Your task to perform on an android device: Go to location settings Image 0: 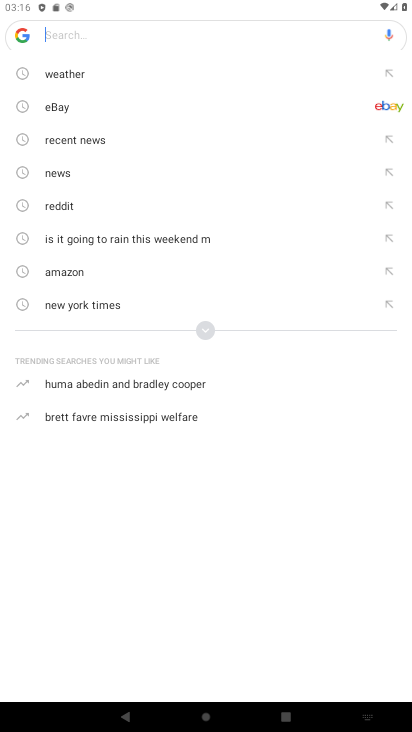
Step 0: press back button
Your task to perform on an android device: Go to location settings Image 1: 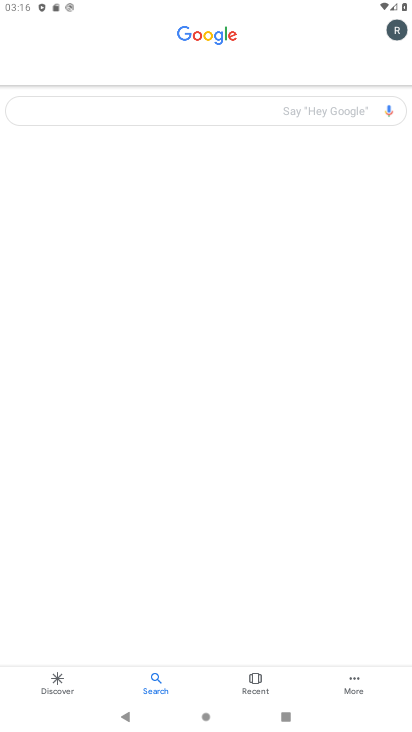
Step 1: press back button
Your task to perform on an android device: Go to location settings Image 2: 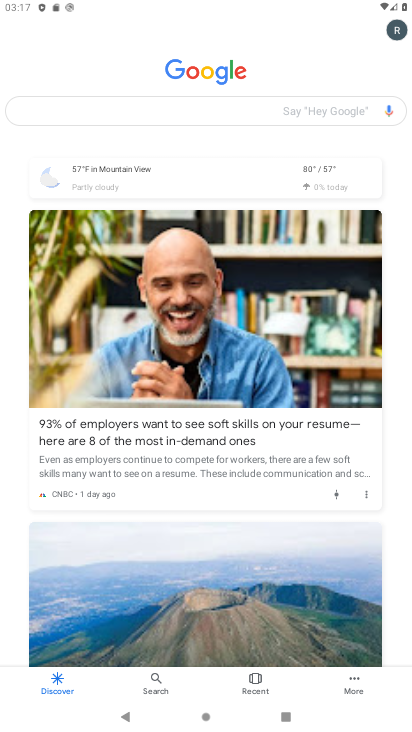
Step 2: press back button
Your task to perform on an android device: Go to location settings Image 3: 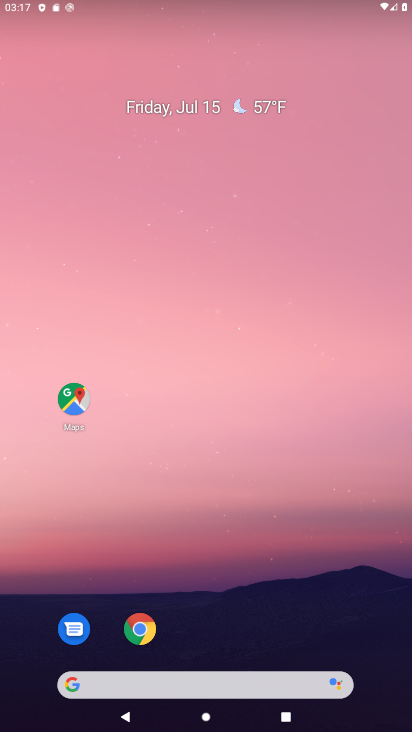
Step 3: drag from (383, 717) to (248, 187)
Your task to perform on an android device: Go to location settings Image 4: 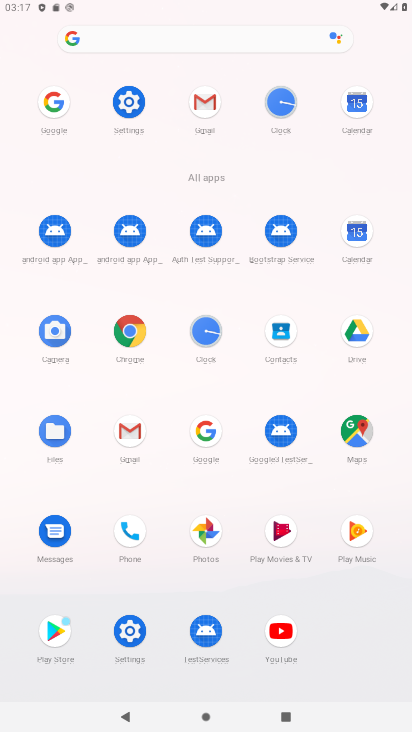
Step 4: click (135, 98)
Your task to perform on an android device: Go to location settings Image 5: 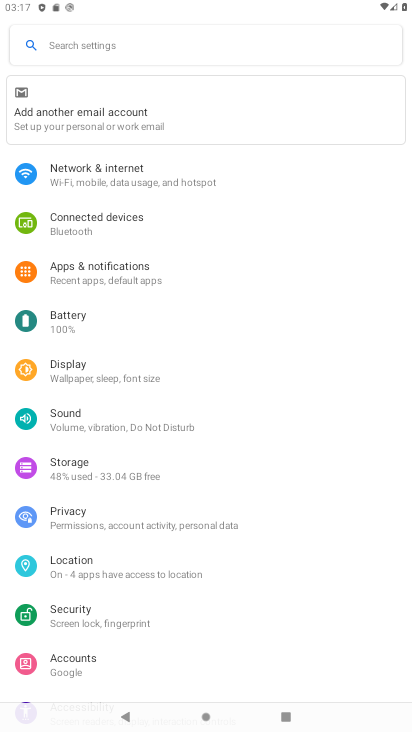
Step 5: click (70, 561)
Your task to perform on an android device: Go to location settings Image 6: 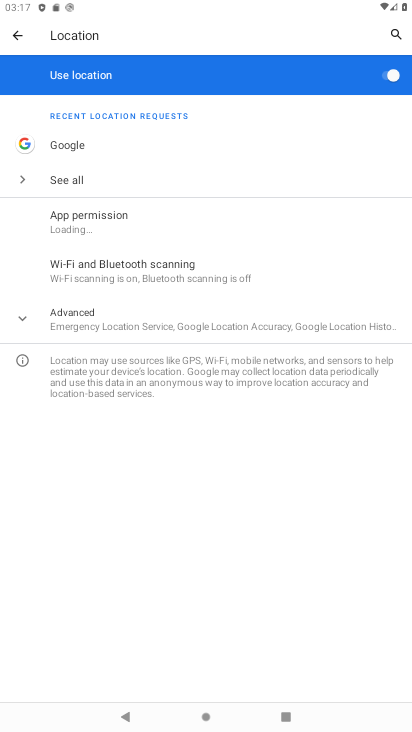
Step 6: click (22, 319)
Your task to perform on an android device: Go to location settings Image 7: 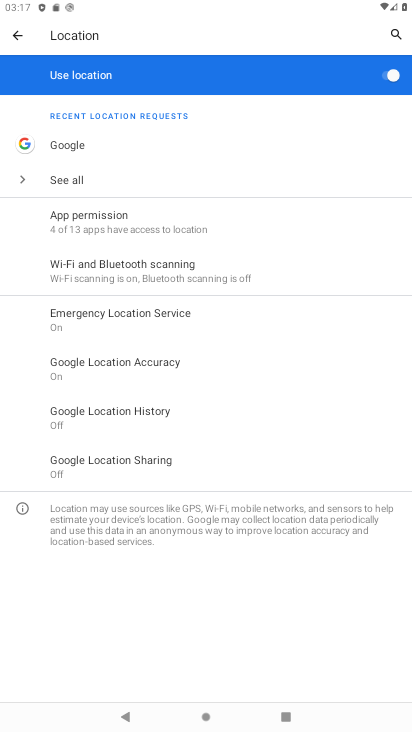
Step 7: task complete